Your task to perform on an android device: turn notification dots off Image 0: 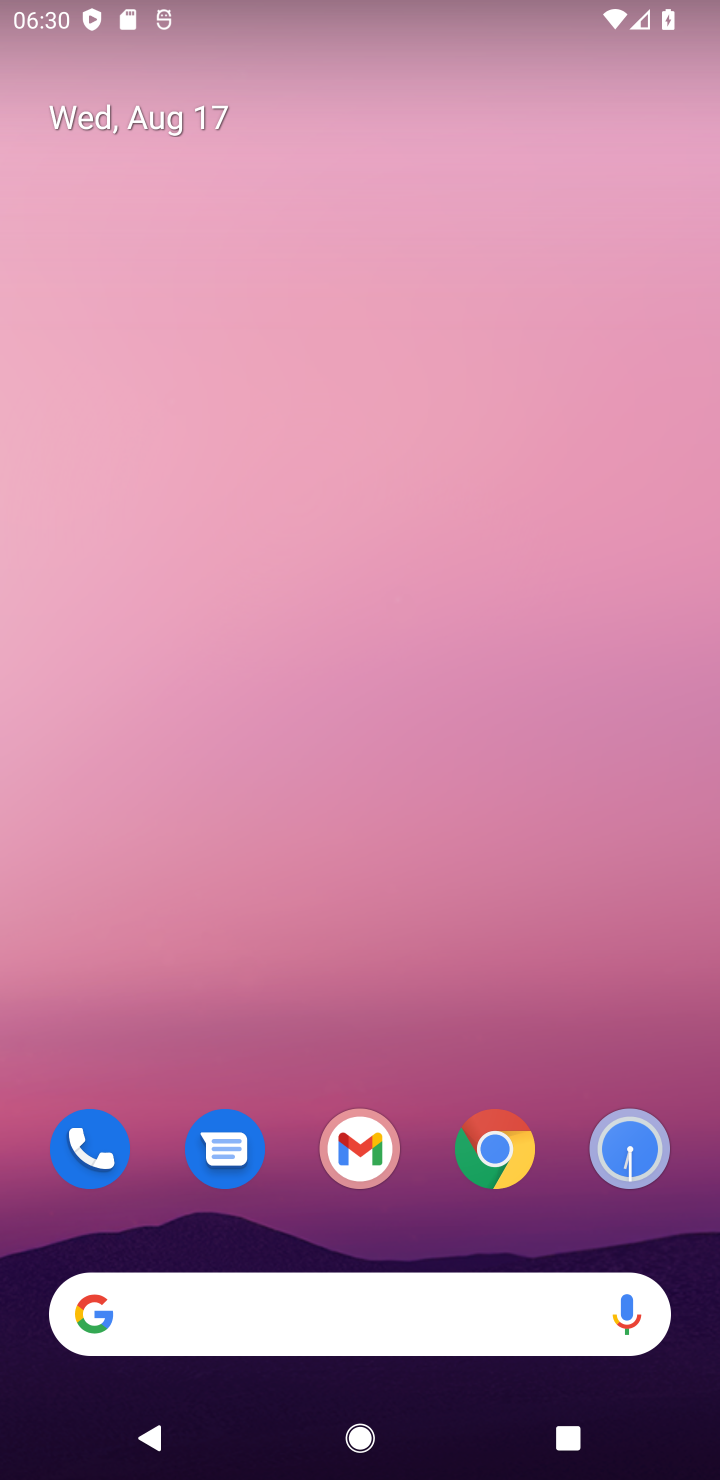
Step 0: press home button
Your task to perform on an android device: turn notification dots off Image 1: 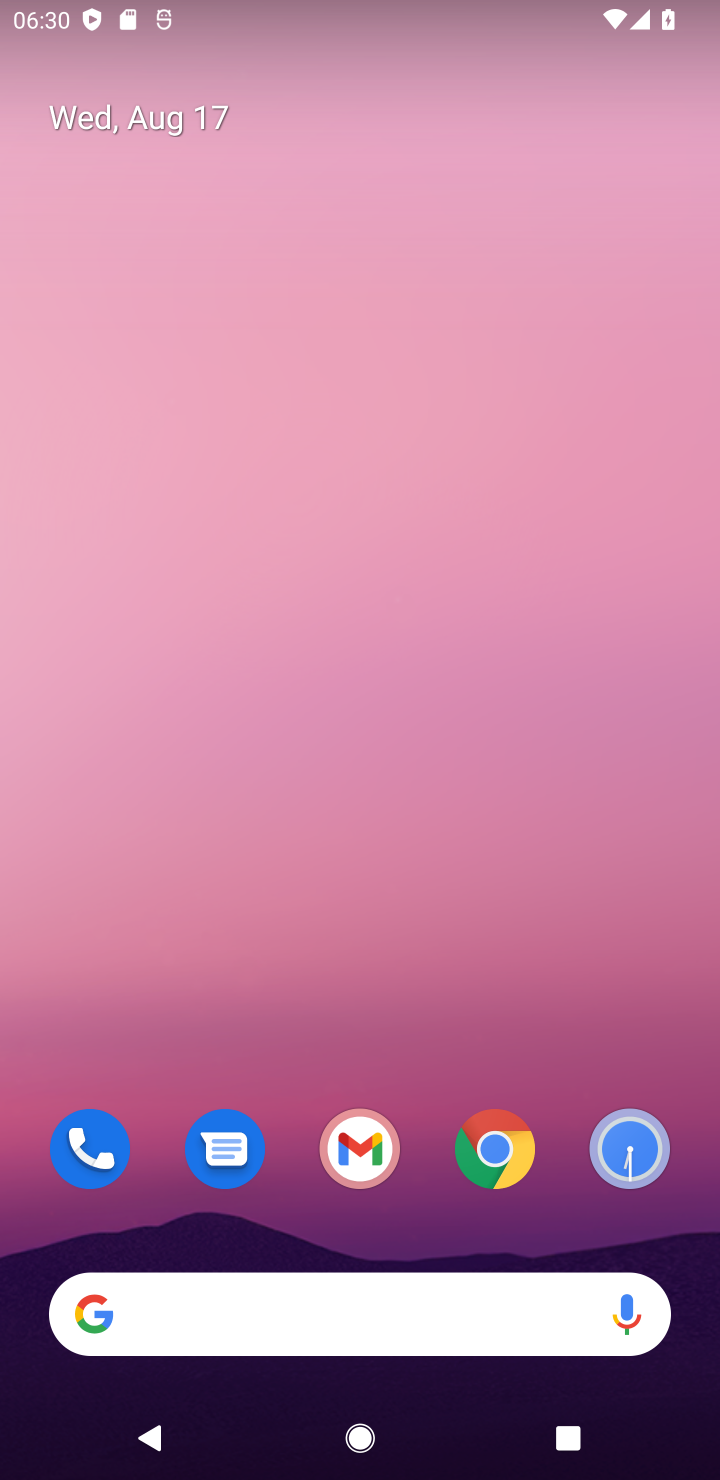
Step 1: drag from (384, 1064) to (218, 242)
Your task to perform on an android device: turn notification dots off Image 2: 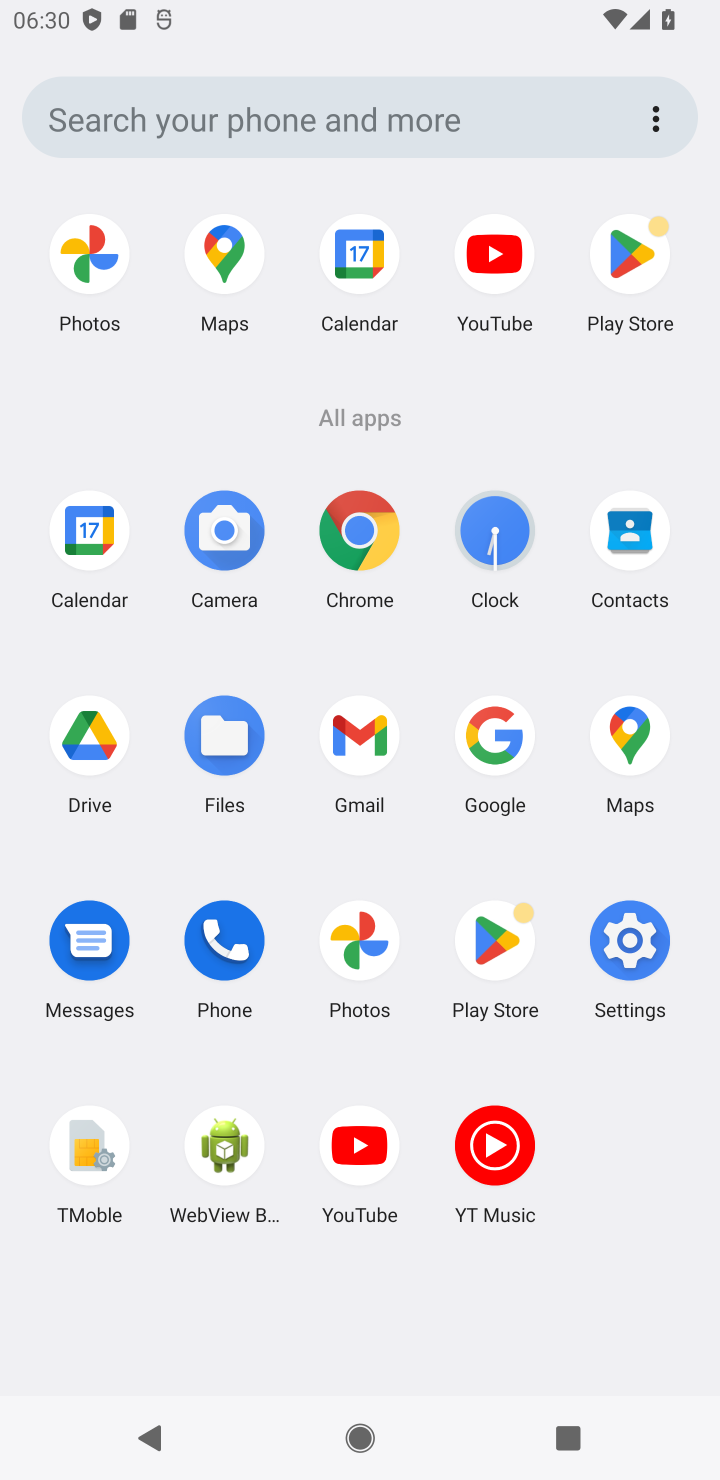
Step 2: click (630, 939)
Your task to perform on an android device: turn notification dots off Image 3: 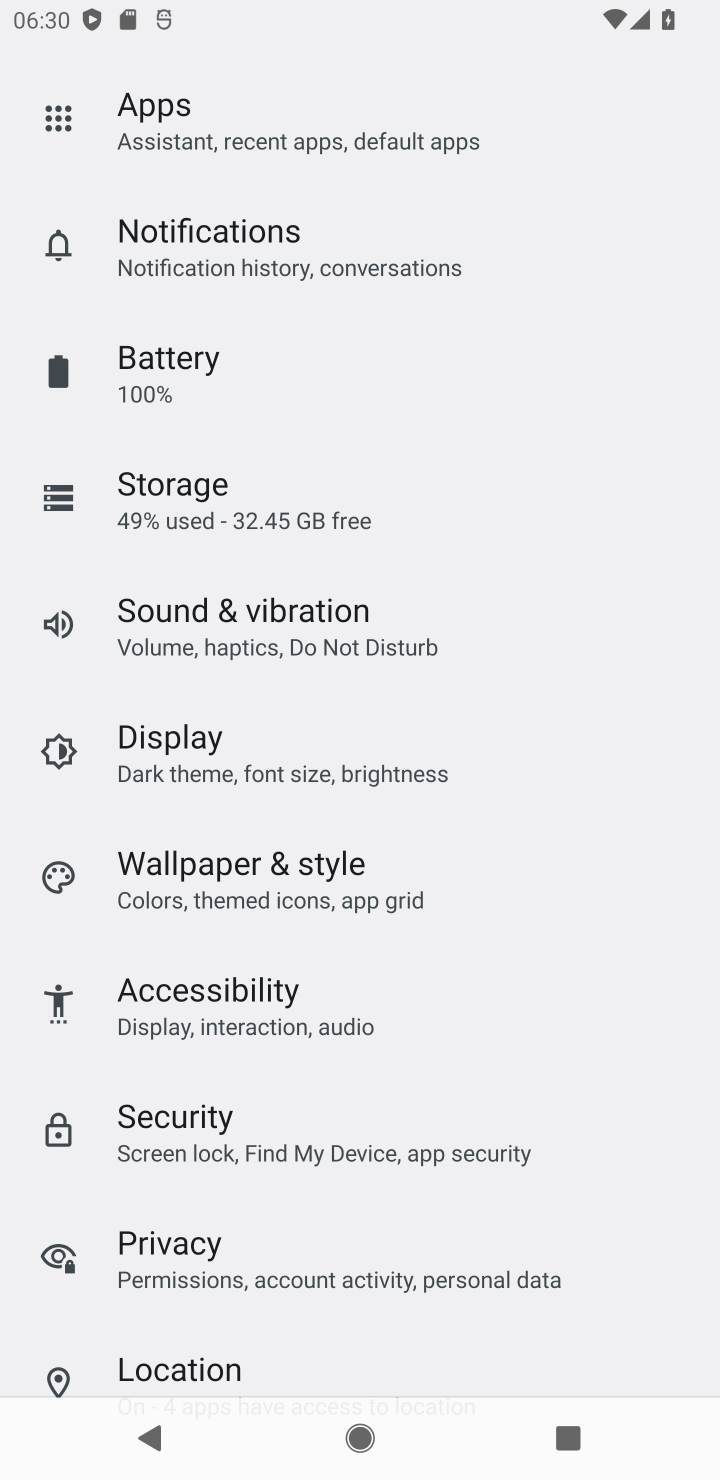
Step 3: click (196, 237)
Your task to perform on an android device: turn notification dots off Image 4: 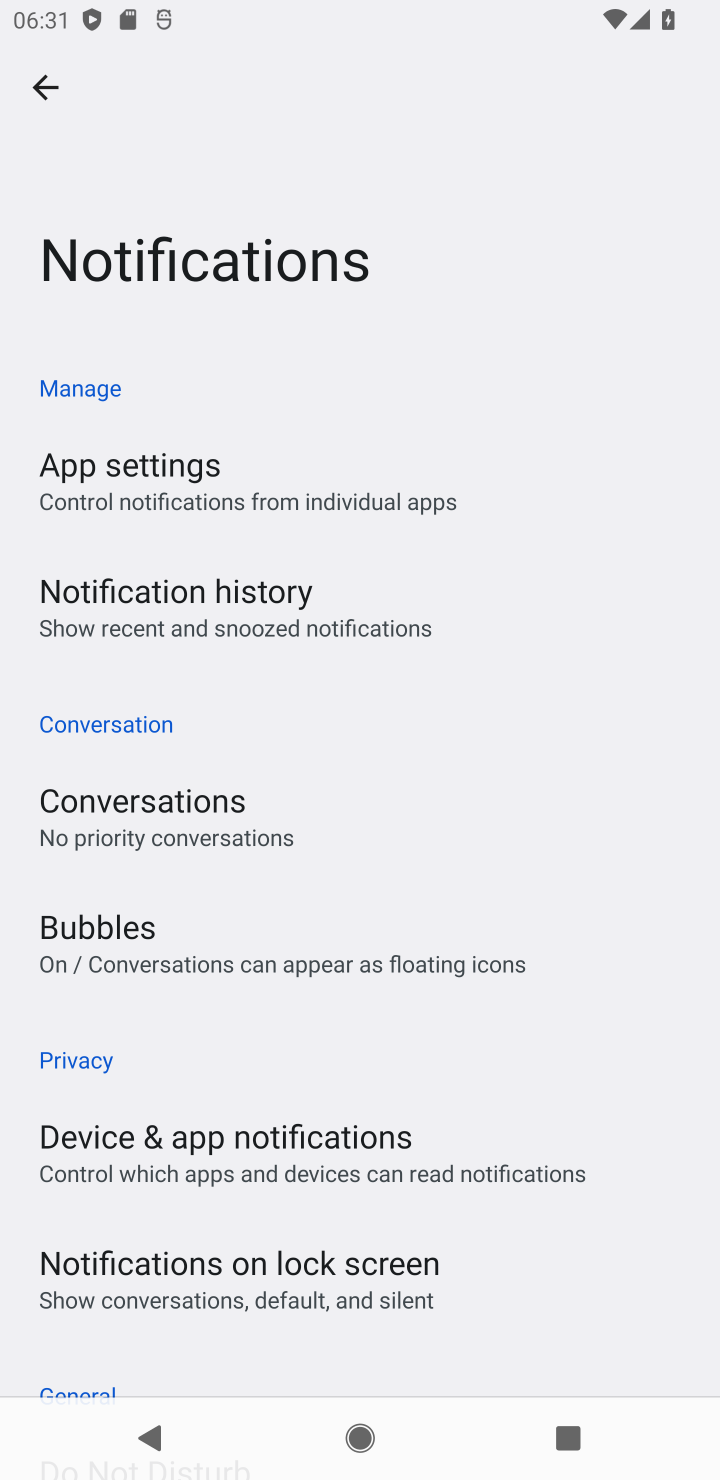
Step 4: drag from (466, 1051) to (464, 511)
Your task to perform on an android device: turn notification dots off Image 5: 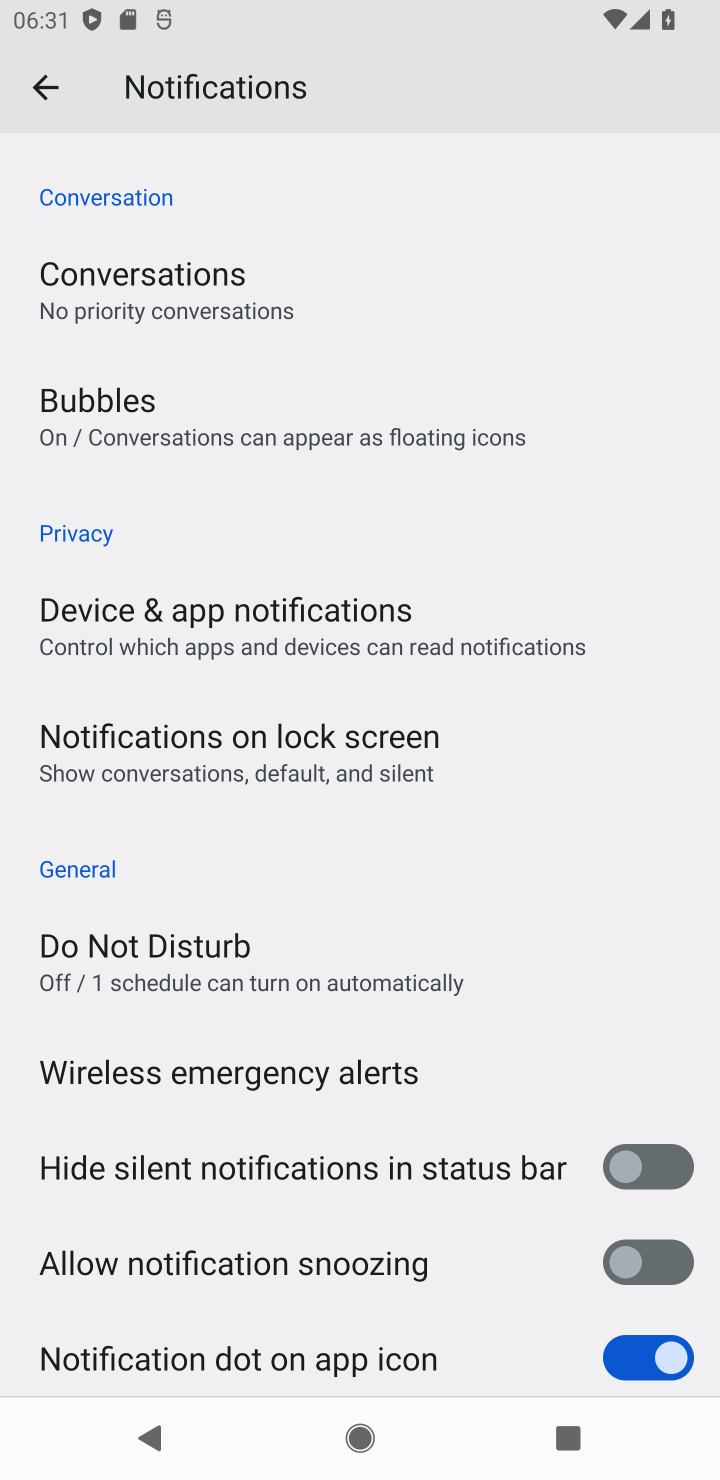
Step 5: drag from (539, 1005) to (549, 798)
Your task to perform on an android device: turn notification dots off Image 6: 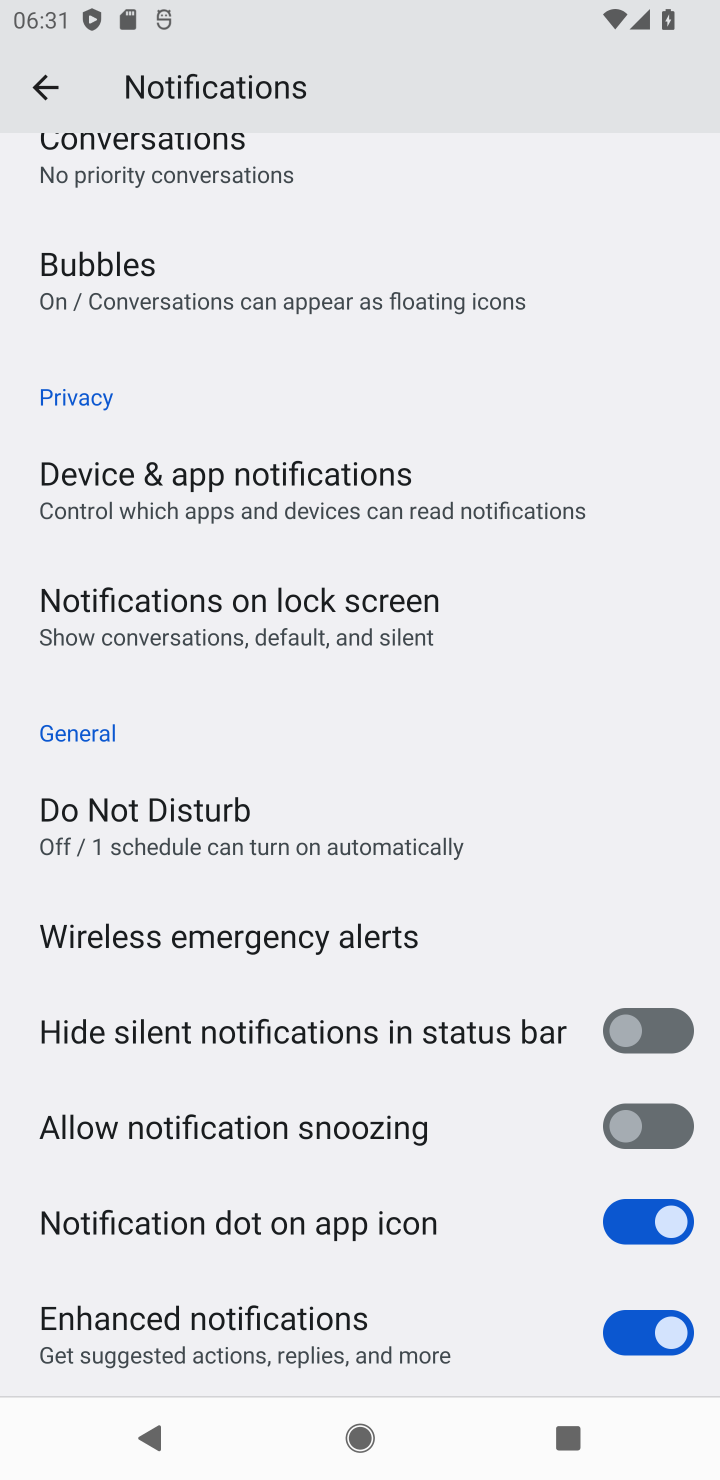
Step 6: click (659, 1219)
Your task to perform on an android device: turn notification dots off Image 7: 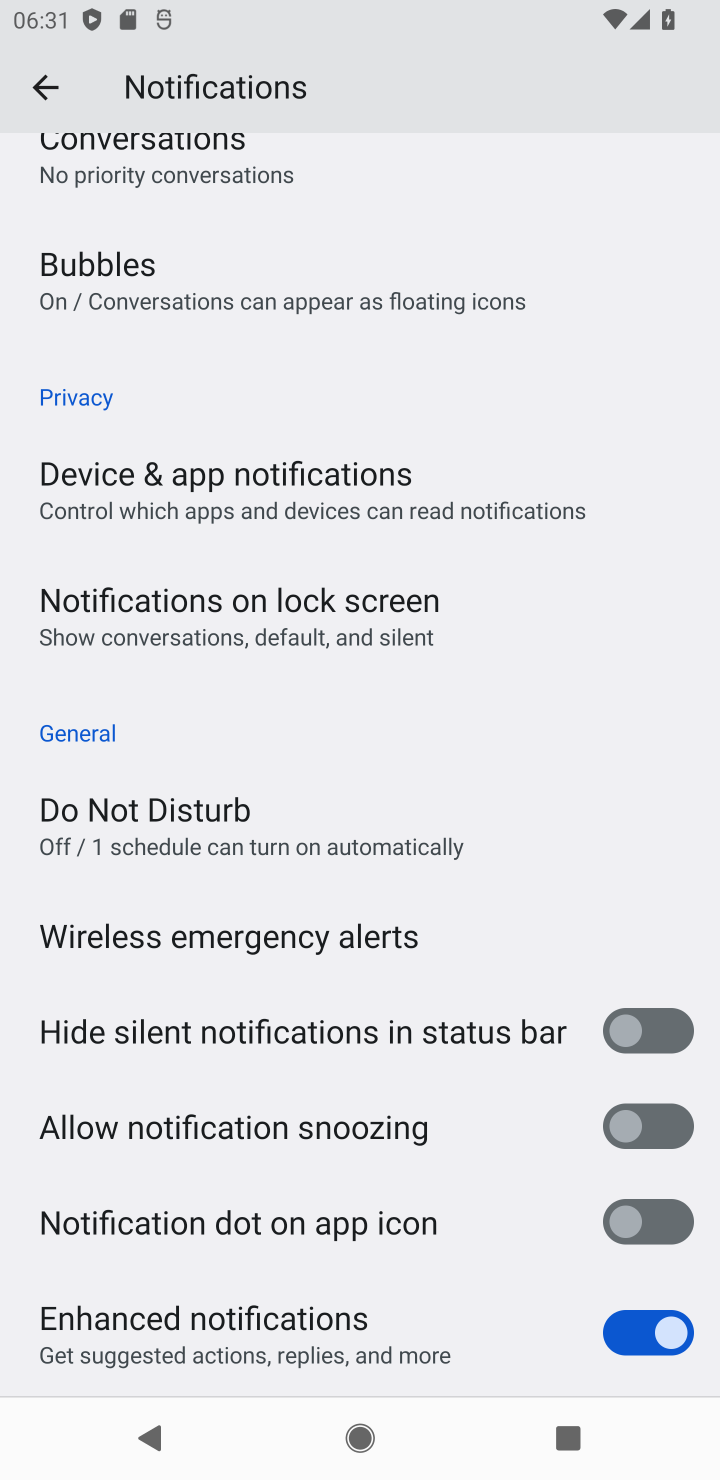
Step 7: task complete